Your task to perform on an android device: toggle data saver in the chrome app Image 0: 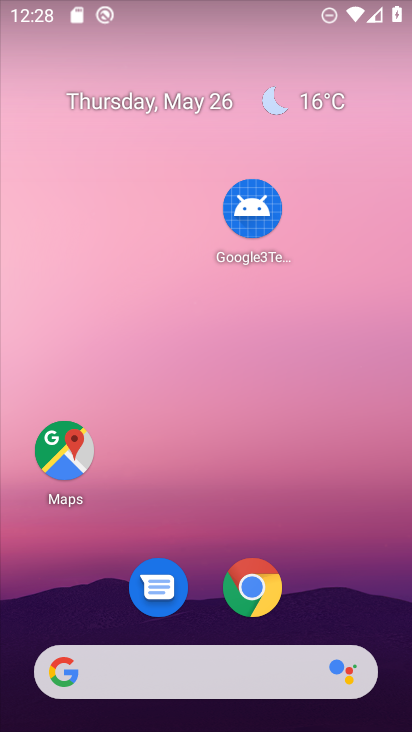
Step 0: click (257, 606)
Your task to perform on an android device: toggle data saver in the chrome app Image 1: 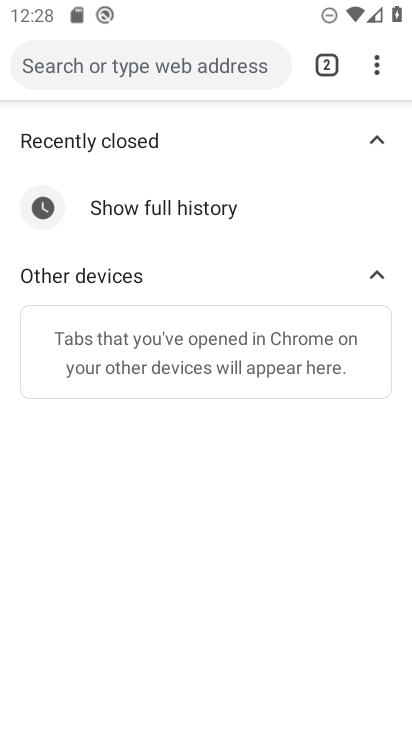
Step 1: drag from (375, 61) to (159, 549)
Your task to perform on an android device: toggle data saver in the chrome app Image 2: 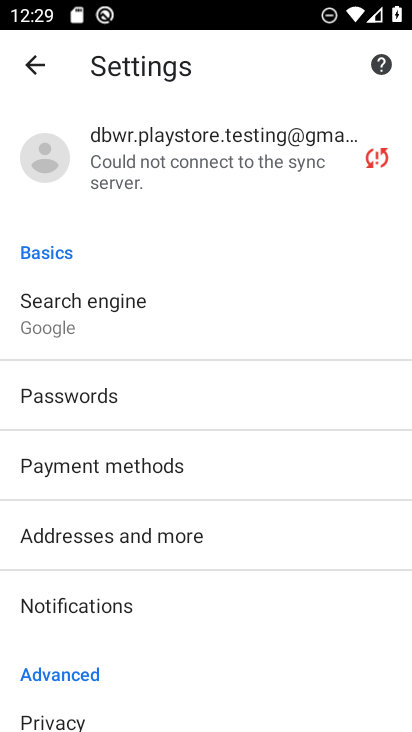
Step 2: drag from (149, 637) to (129, 85)
Your task to perform on an android device: toggle data saver in the chrome app Image 3: 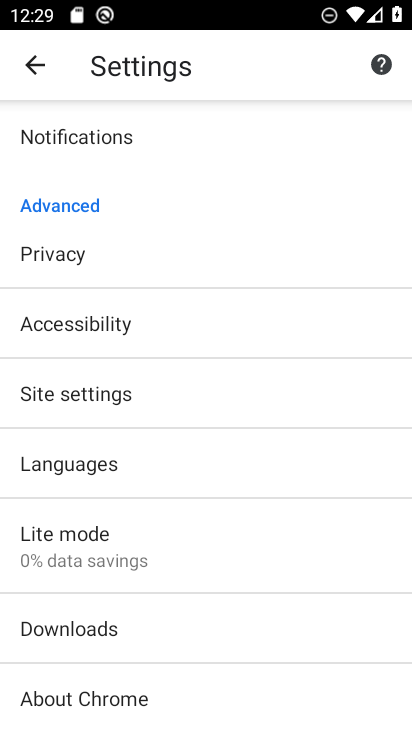
Step 3: click (97, 546)
Your task to perform on an android device: toggle data saver in the chrome app Image 4: 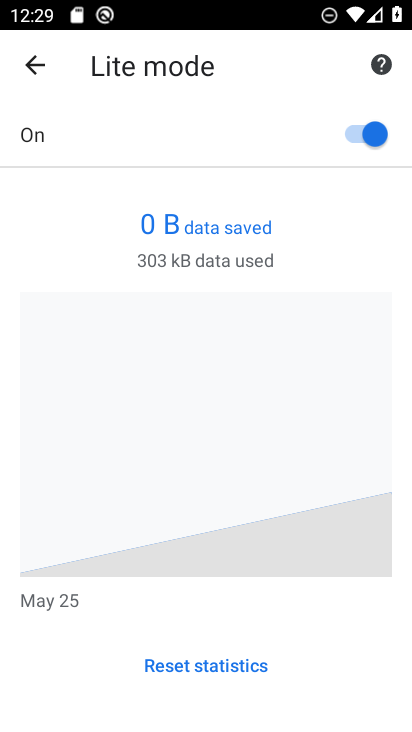
Step 4: click (365, 135)
Your task to perform on an android device: toggle data saver in the chrome app Image 5: 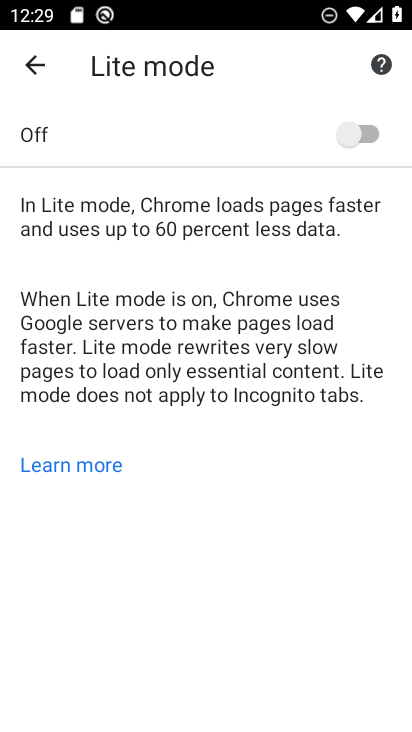
Step 5: task complete